Your task to perform on an android device: delete the emails in spam in the gmail app Image 0: 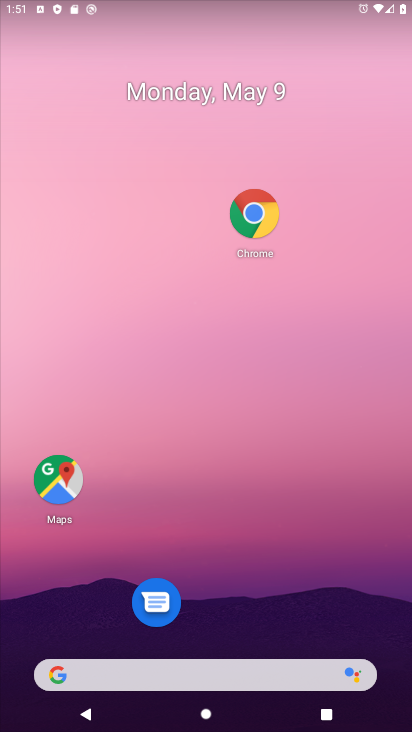
Step 0: drag from (238, 593) to (98, 72)
Your task to perform on an android device: delete the emails in spam in the gmail app Image 1: 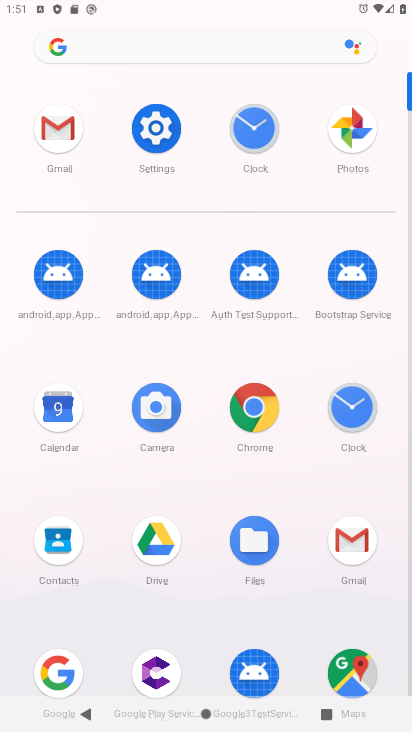
Step 1: click (172, 122)
Your task to perform on an android device: delete the emails in spam in the gmail app Image 2: 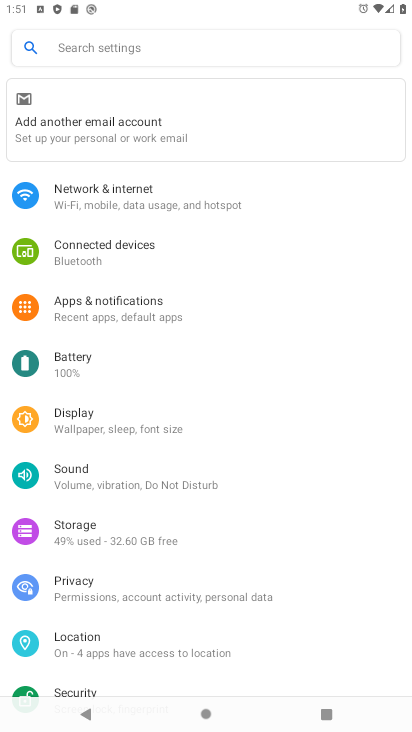
Step 2: press home button
Your task to perform on an android device: delete the emails in spam in the gmail app Image 3: 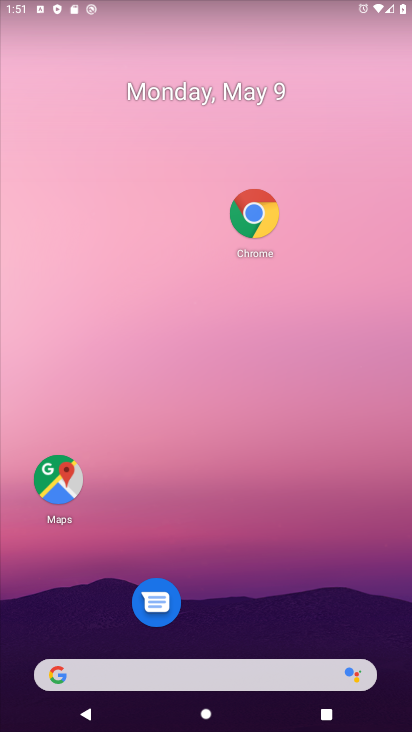
Step 3: drag from (258, 500) to (130, 78)
Your task to perform on an android device: delete the emails in spam in the gmail app Image 4: 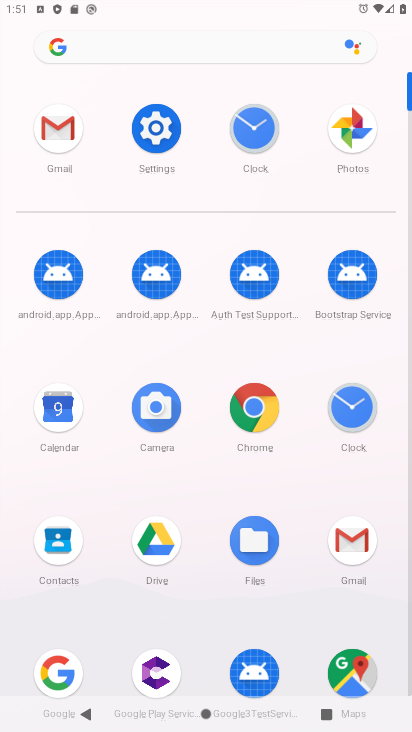
Step 4: click (62, 150)
Your task to perform on an android device: delete the emails in spam in the gmail app Image 5: 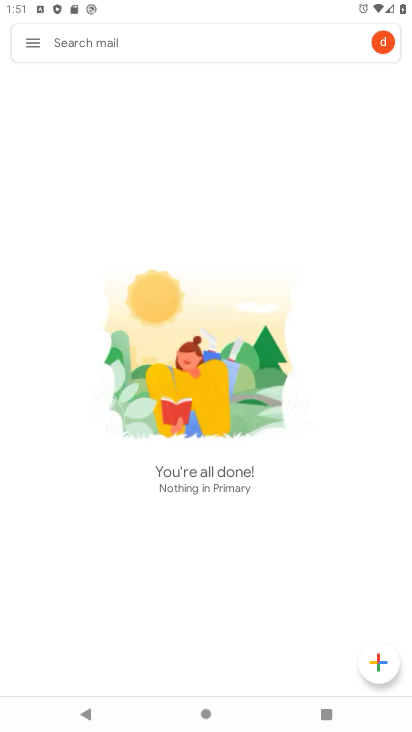
Step 5: click (34, 47)
Your task to perform on an android device: delete the emails in spam in the gmail app Image 6: 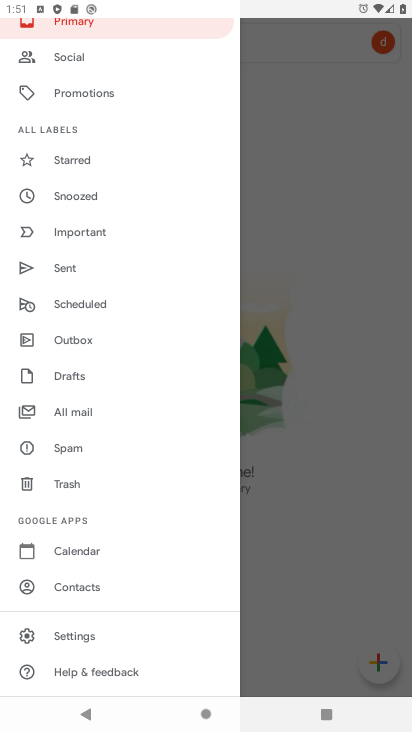
Step 6: click (91, 459)
Your task to perform on an android device: delete the emails in spam in the gmail app Image 7: 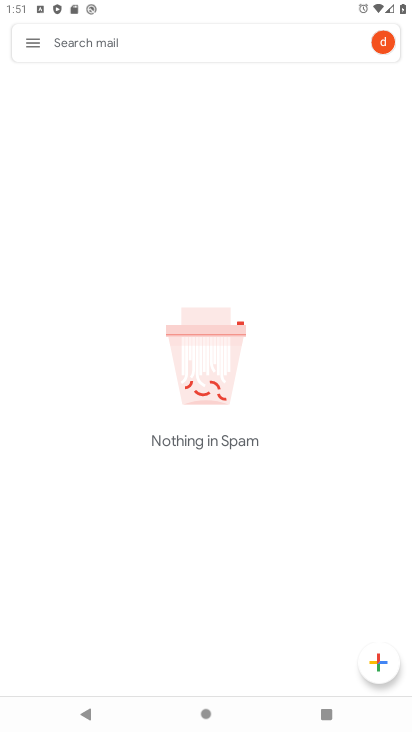
Step 7: task complete